Your task to perform on an android device: Open sound settings Image 0: 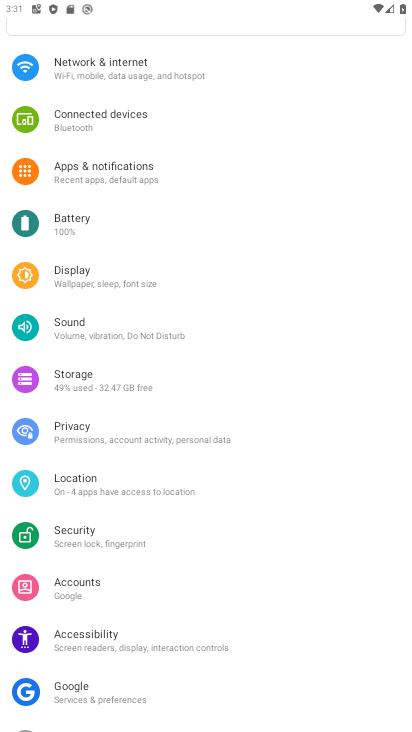
Step 0: click (94, 328)
Your task to perform on an android device: Open sound settings Image 1: 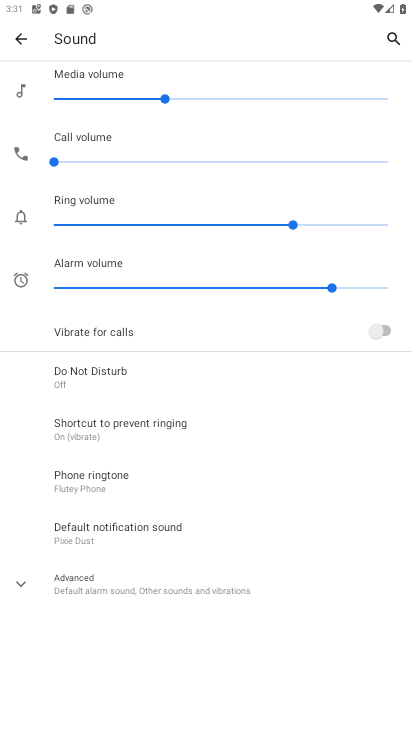
Step 1: task complete